Your task to perform on an android device: find which apps use the phone's location Image 0: 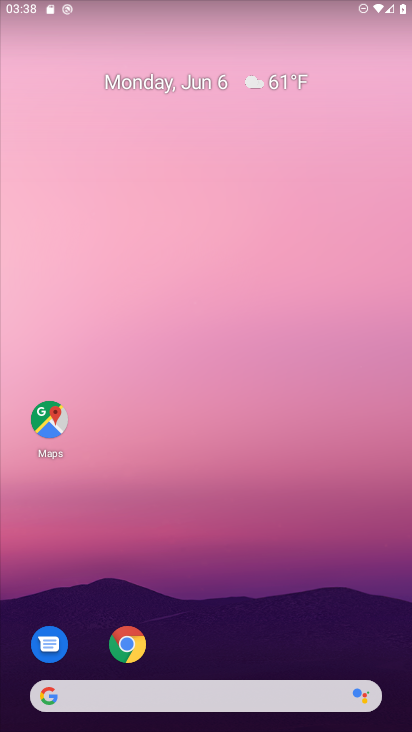
Step 0: drag from (228, 636) to (278, 4)
Your task to perform on an android device: find which apps use the phone's location Image 1: 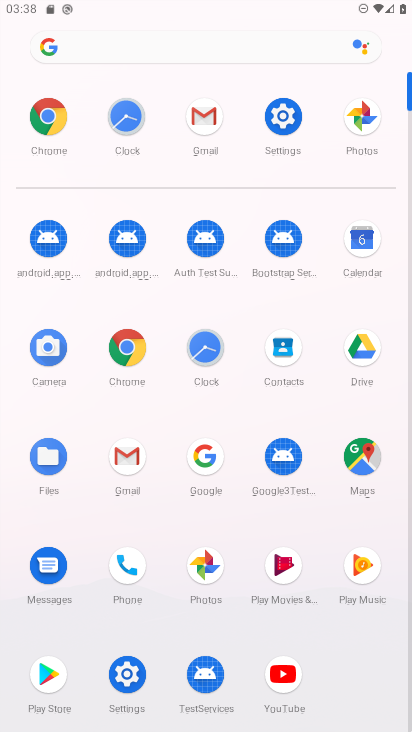
Step 1: click (284, 130)
Your task to perform on an android device: find which apps use the phone's location Image 2: 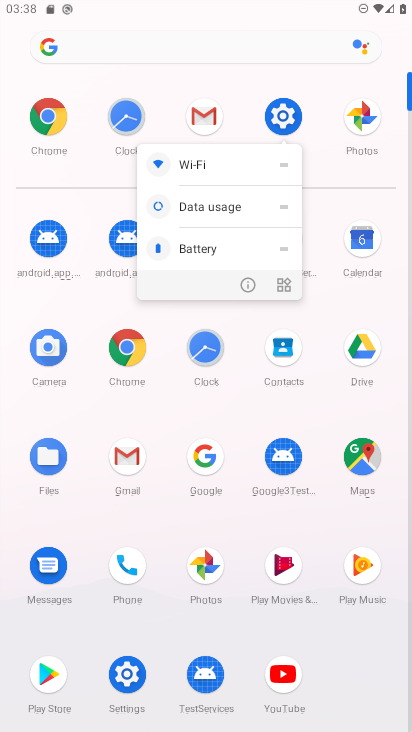
Step 2: click (283, 131)
Your task to perform on an android device: find which apps use the phone's location Image 3: 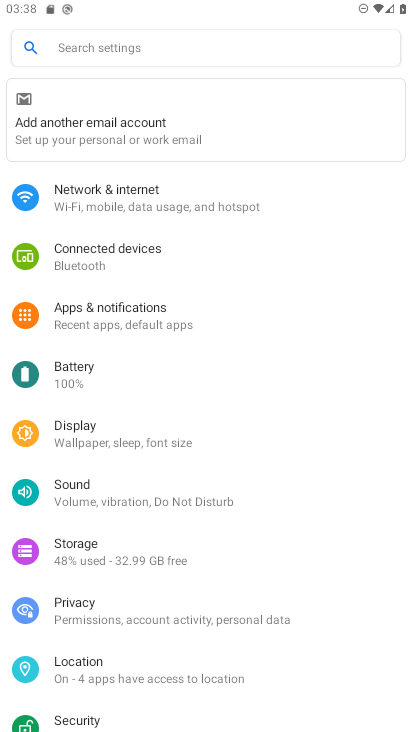
Step 3: click (120, 681)
Your task to perform on an android device: find which apps use the phone's location Image 4: 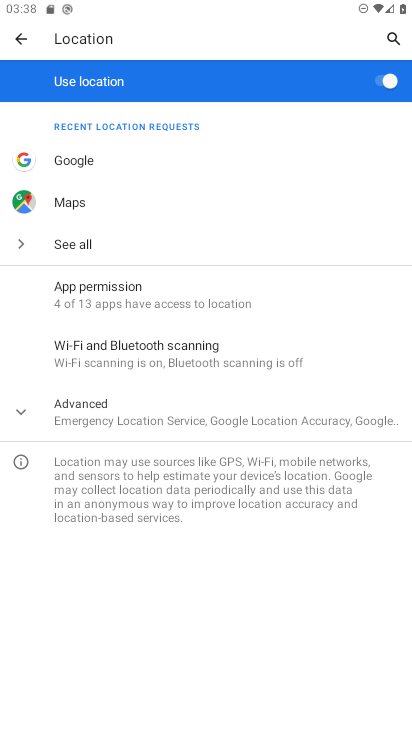
Step 4: click (135, 301)
Your task to perform on an android device: find which apps use the phone's location Image 5: 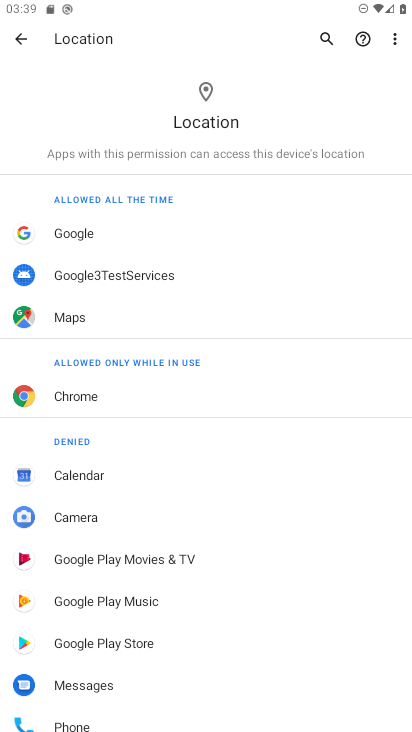
Step 5: task complete